Your task to perform on an android device: Open calendar and show me the first week of next month Image 0: 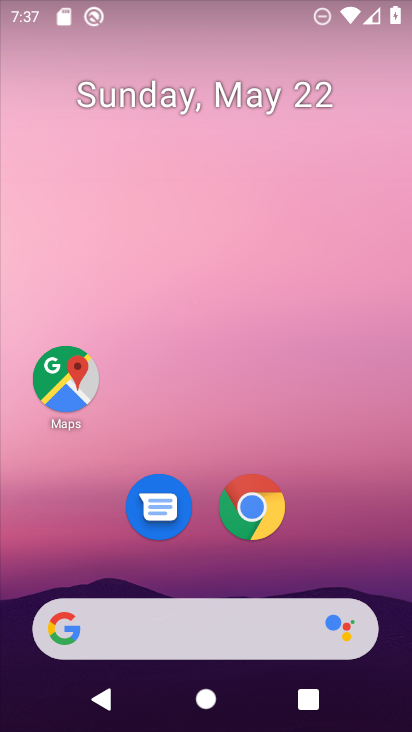
Step 0: drag from (167, 669) to (395, 607)
Your task to perform on an android device: Open calendar and show me the first week of next month Image 1: 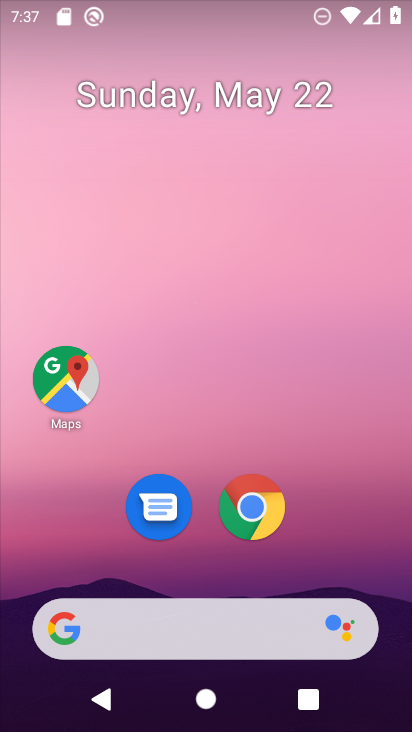
Step 1: drag from (157, 705) to (213, 0)
Your task to perform on an android device: Open calendar and show me the first week of next month Image 2: 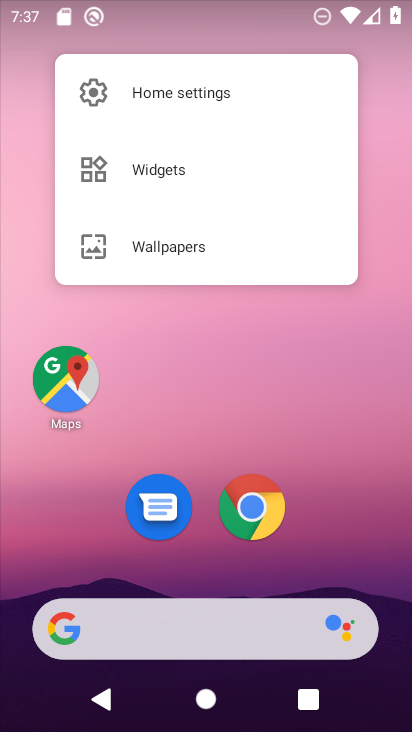
Step 2: click (174, 703)
Your task to perform on an android device: Open calendar and show me the first week of next month Image 3: 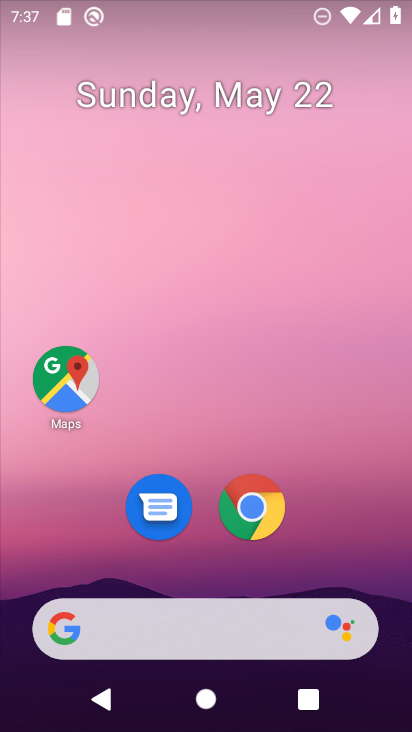
Step 3: drag from (141, 708) to (222, 10)
Your task to perform on an android device: Open calendar and show me the first week of next month Image 4: 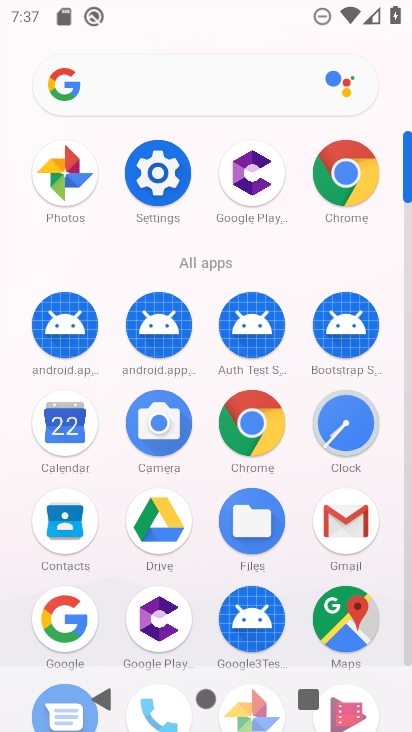
Step 4: click (66, 438)
Your task to perform on an android device: Open calendar and show me the first week of next month Image 5: 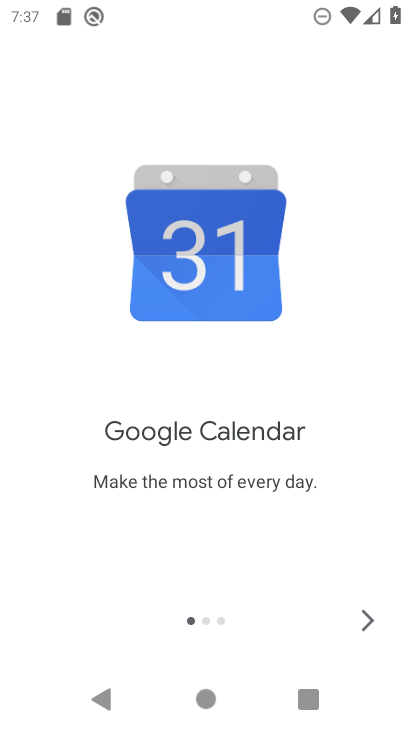
Step 5: click (370, 618)
Your task to perform on an android device: Open calendar and show me the first week of next month Image 6: 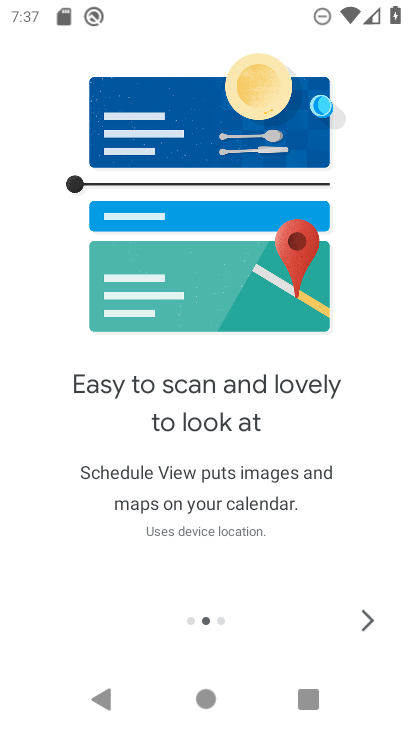
Step 6: click (368, 617)
Your task to perform on an android device: Open calendar and show me the first week of next month Image 7: 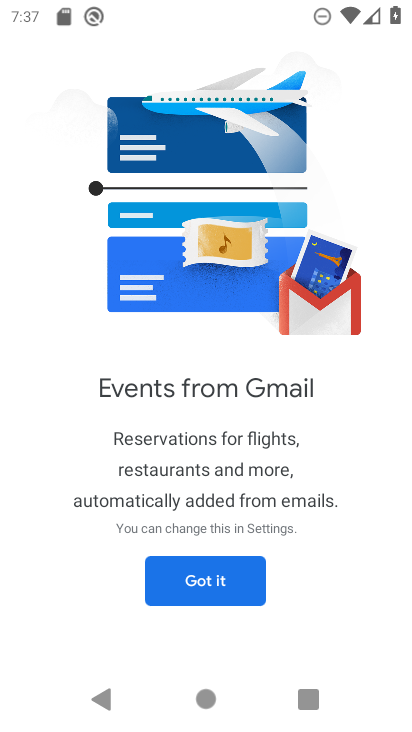
Step 7: click (244, 560)
Your task to perform on an android device: Open calendar and show me the first week of next month Image 8: 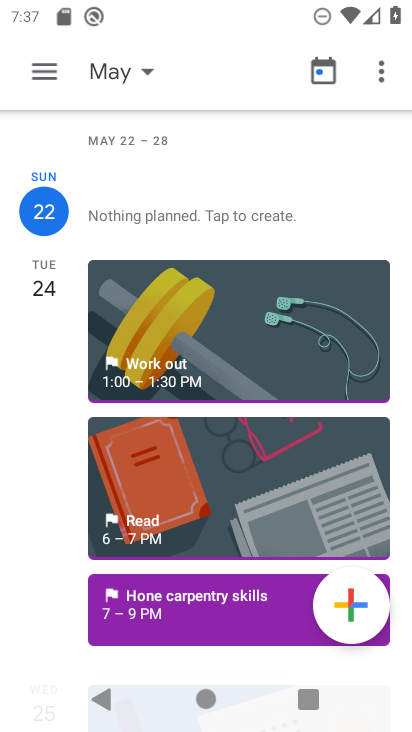
Step 8: click (120, 74)
Your task to perform on an android device: Open calendar and show me the first week of next month Image 9: 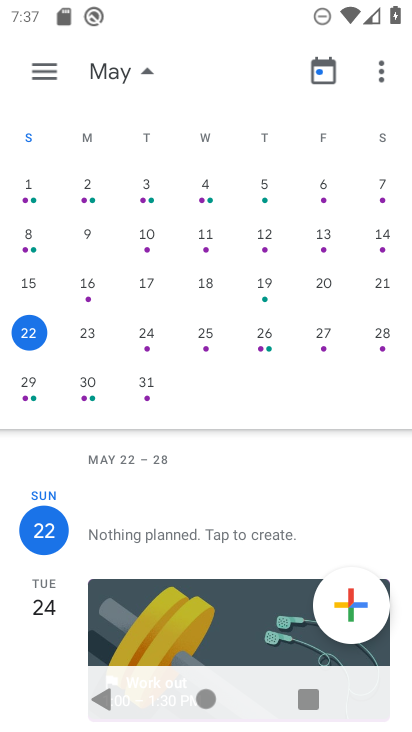
Step 9: drag from (382, 256) to (76, 260)
Your task to perform on an android device: Open calendar and show me the first week of next month Image 10: 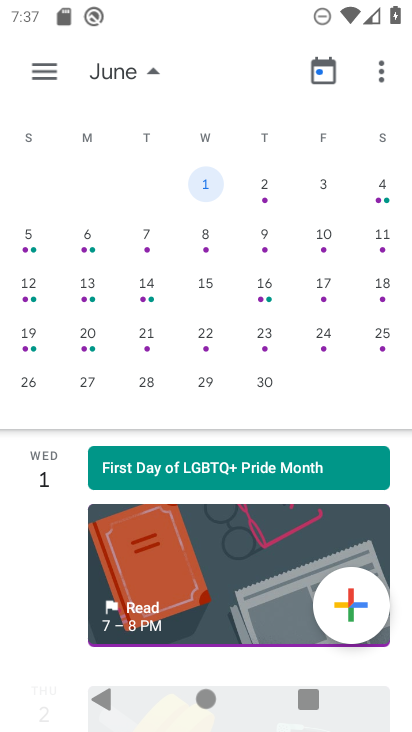
Step 10: click (201, 183)
Your task to perform on an android device: Open calendar and show me the first week of next month Image 11: 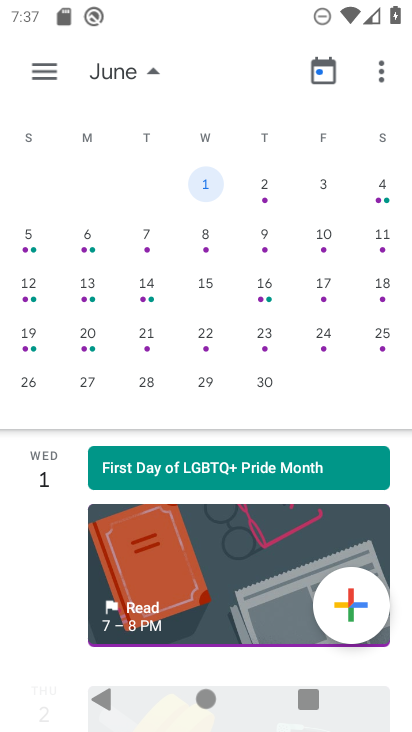
Step 11: task complete